Your task to perform on an android device: Turn off the flashlight Image 0: 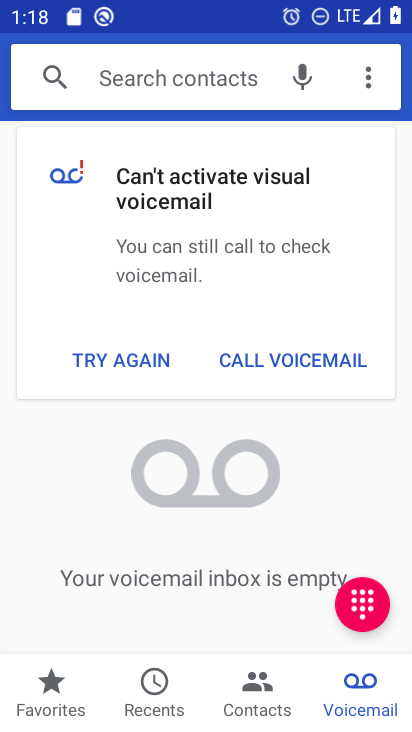
Step 0: press home button
Your task to perform on an android device: Turn off the flashlight Image 1: 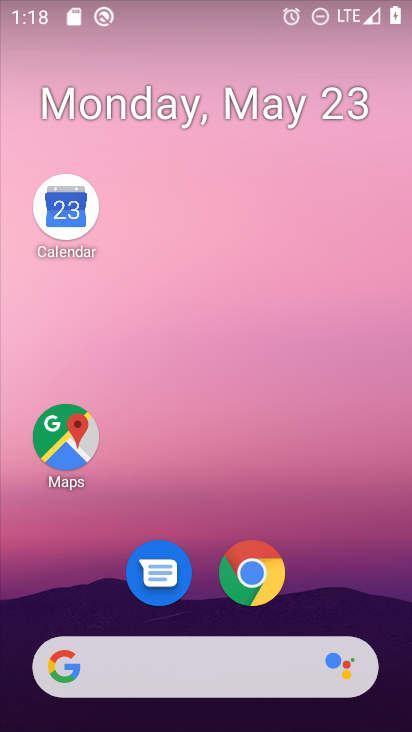
Step 1: drag from (195, 606) to (295, 94)
Your task to perform on an android device: Turn off the flashlight Image 2: 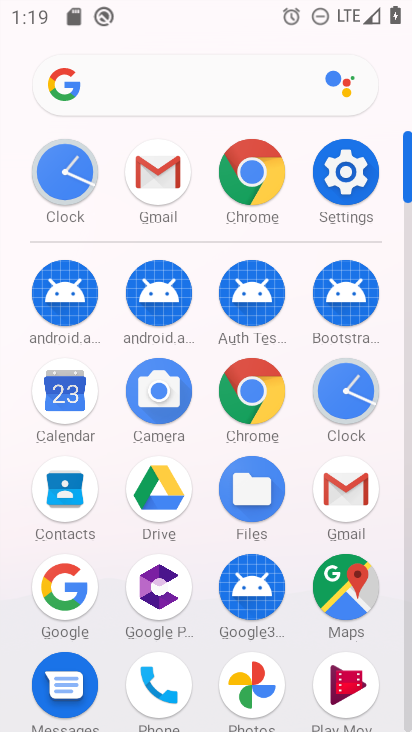
Step 2: click (333, 167)
Your task to perform on an android device: Turn off the flashlight Image 3: 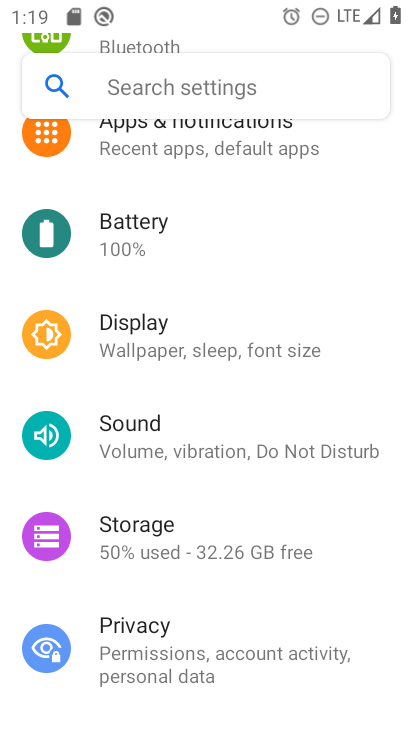
Step 3: task complete